Your task to perform on an android device: Open settings on Google Maps Image 0: 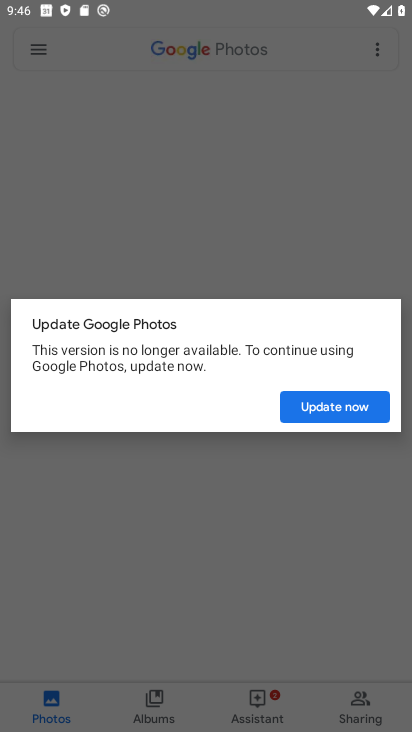
Step 0: press home button
Your task to perform on an android device: Open settings on Google Maps Image 1: 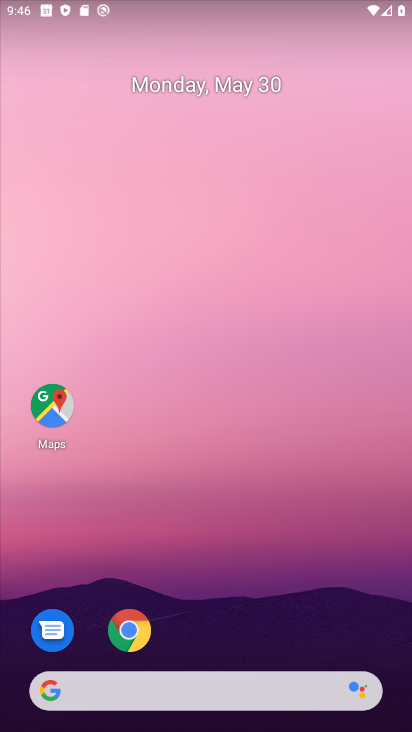
Step 1: click (71, 414)
Your task to perform on an android device: Open settings on Google Maps Image 2: 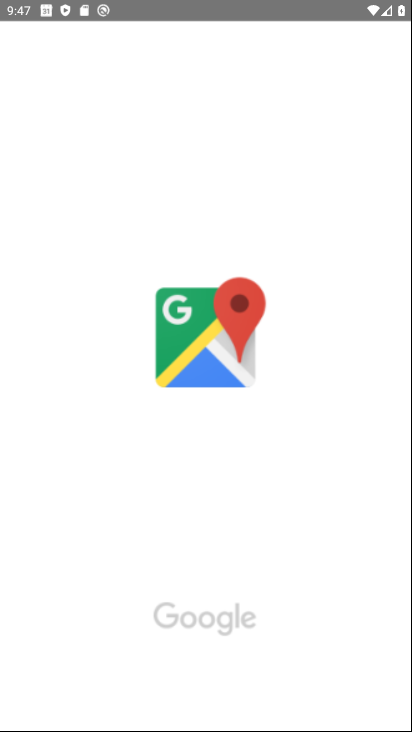
Step 2: task complete